Your task to perform on an android device: Go to Reddit.com Image 0: 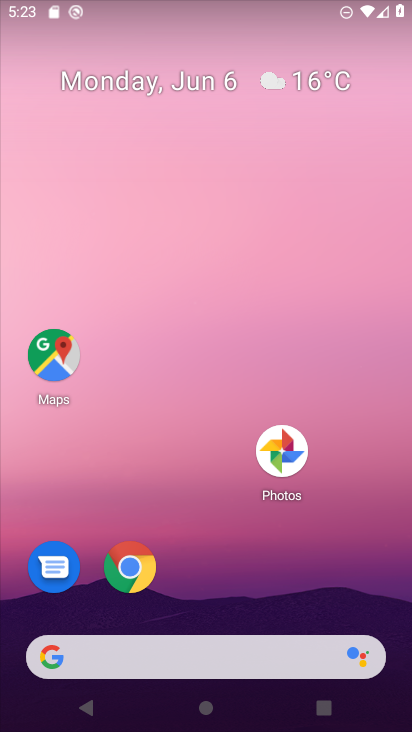
Step 0: drag from (296, 703) to (204, 73)
Your task to perform on an android device: Go to Reddit.com Image 1: 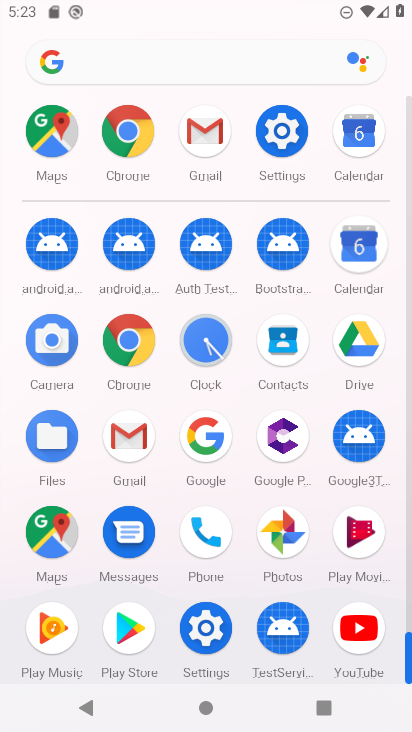
Step 1: click (112, 132)
Your task to perform on an android device: Go to Reddit.com Image 2: 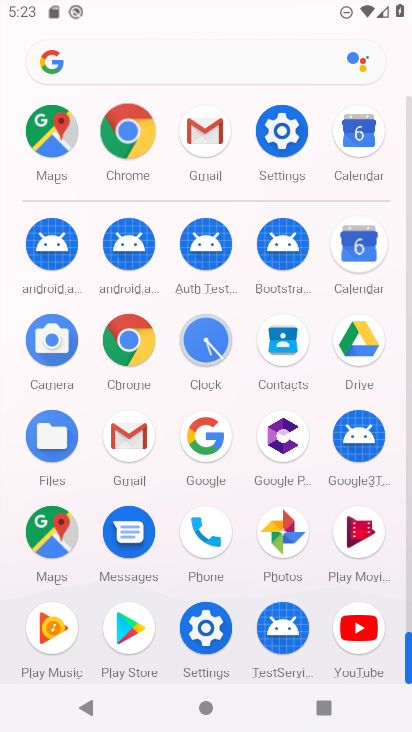
Step 2: click (115, 133)
Your task to perform on an android device: Go to Reddit.com Image 3: 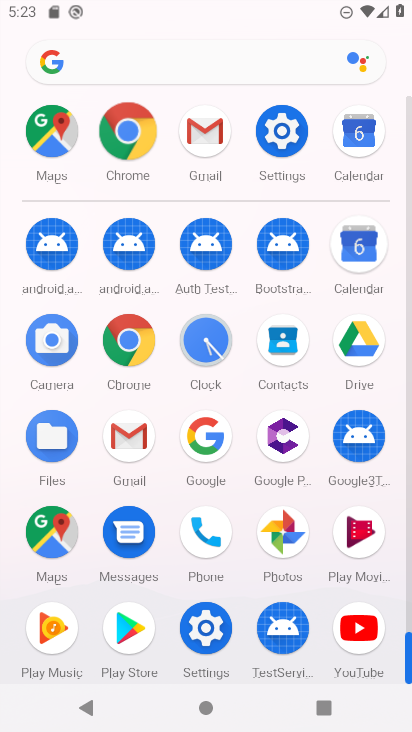
Step 3: click (119, 147)
Your task to perform on an android device: Go to Reddit.com Image 4: 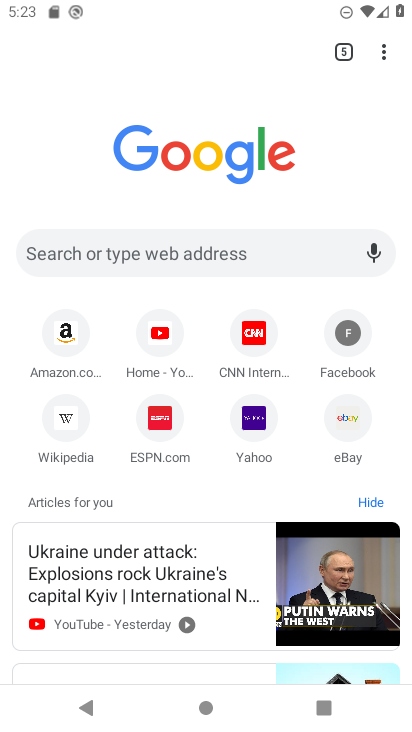
Step 4: click (70, 253)
Your task to perform on an android device: Go to Reddit.com Image 5: 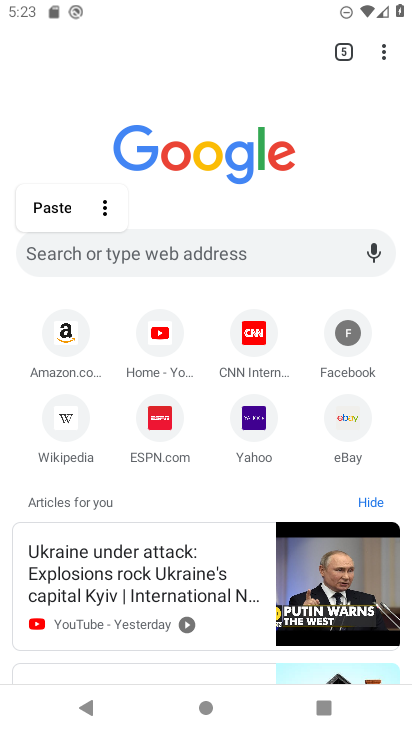
Step 5: type "reddit.com"
Your task to perform on an android device: Go to Reddit.com Image 6: 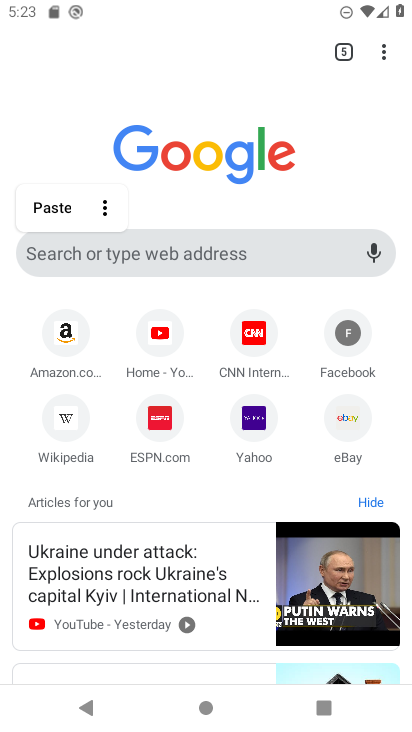
Step 6: click (49, 251)
Your task to perform on an android device: Go to Reddit.com Image 7: 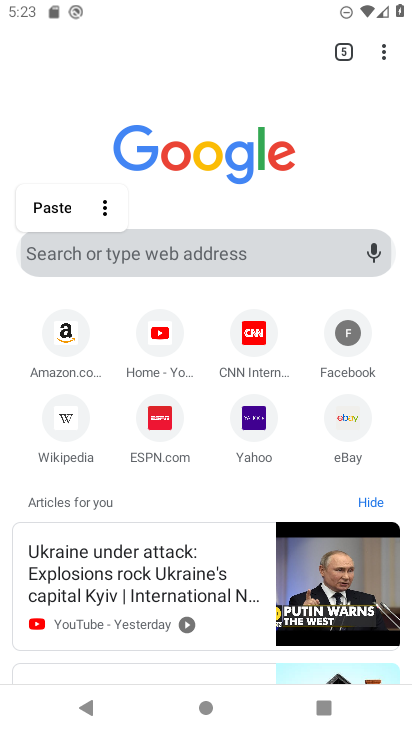
Step 7: click (49, 251)
Your task to perform on an android device: Go to Reddit.com Image 8: 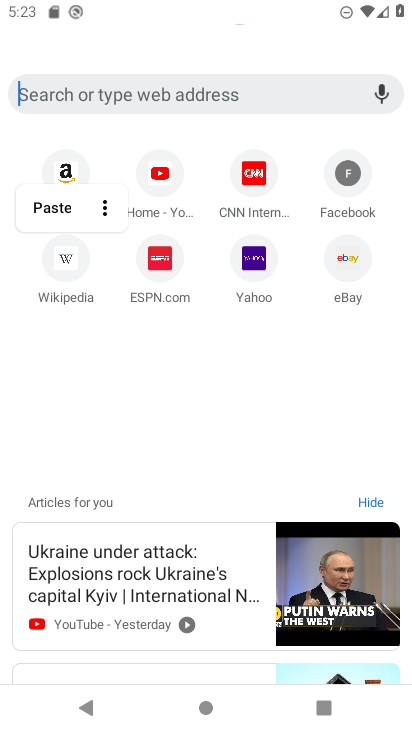
Step 8: click (50, 252)
Your task to perform on an android device: Go to Reddit.com Image 9: 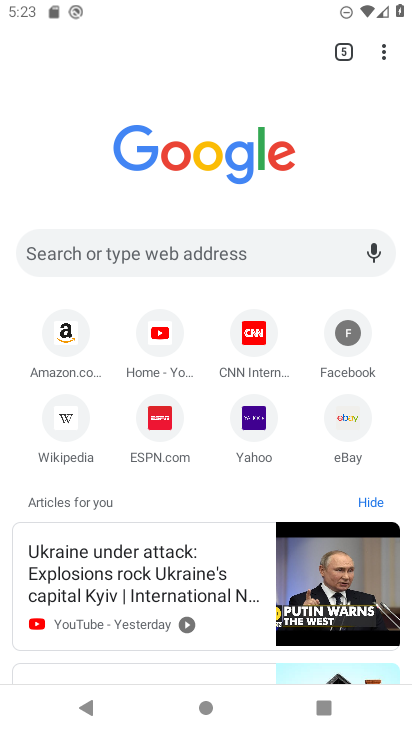
Step 9: click (53, 243)
Your task to perform on an android device: Go to Reddit.com Image 10: 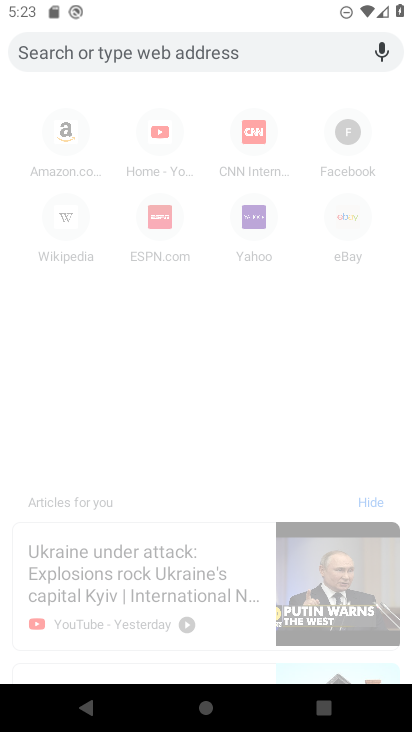
Step 10: type "reddit.com"
Your task to perform on an android device: Go to Reddit.com Image 11: 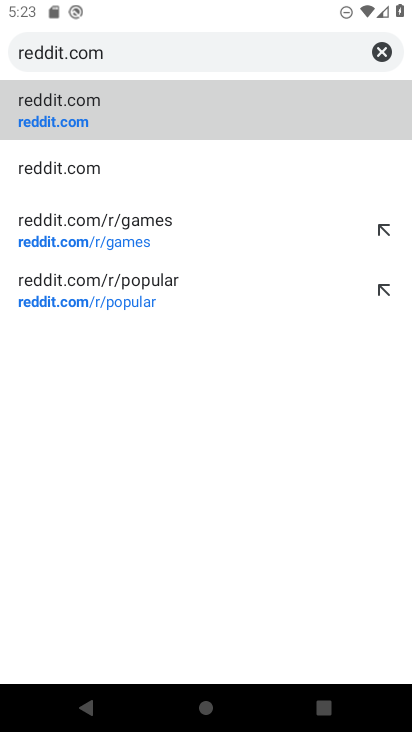
Step 11: task complete